Your task to perform on an android device: stop showing notifications on the lock screen Image 0: 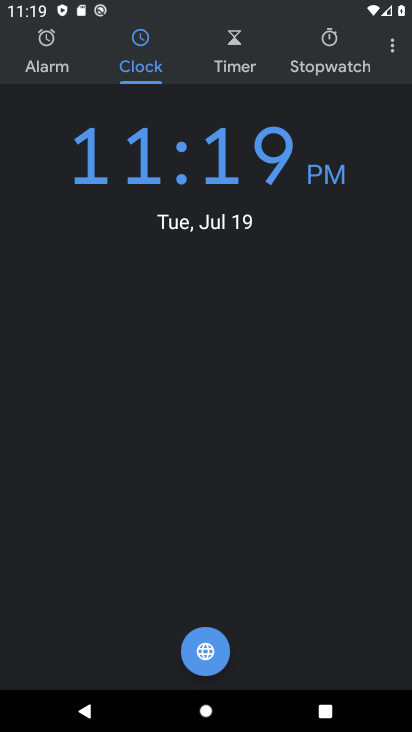
Step 0: drag from (364, 626) to (183, 82)
Your task to perform on an android device: stop showing notifications on the lock screen Image 1: 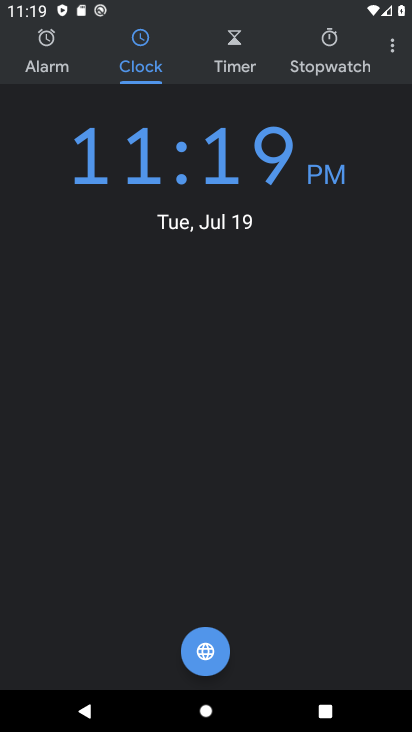
Step 1: press home button
Your task to perform on an android device: stop showing notifications on the lock screen Image 2: 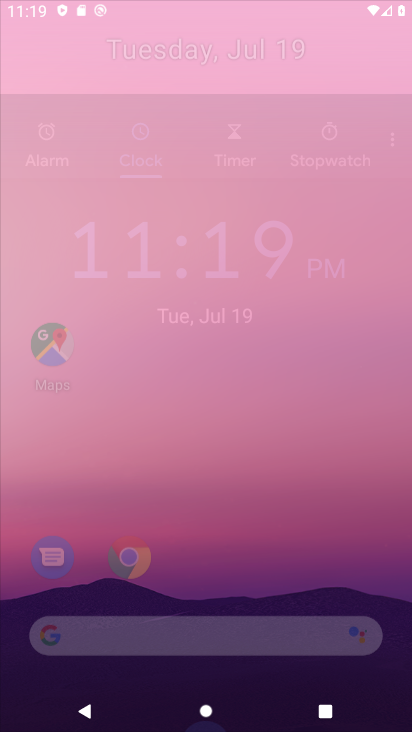
Step 2: drag from (382, 698) to (245, 29)
Your task to perform on an android device: stop showing notifications on the lock screen Image 3: 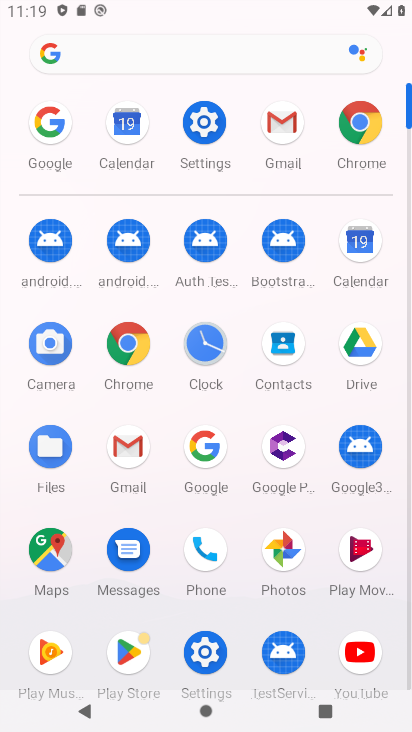
Step 3: click (199, 125)
Your task to perform on an android device: stop showing notifications on the lock screen Image 4: 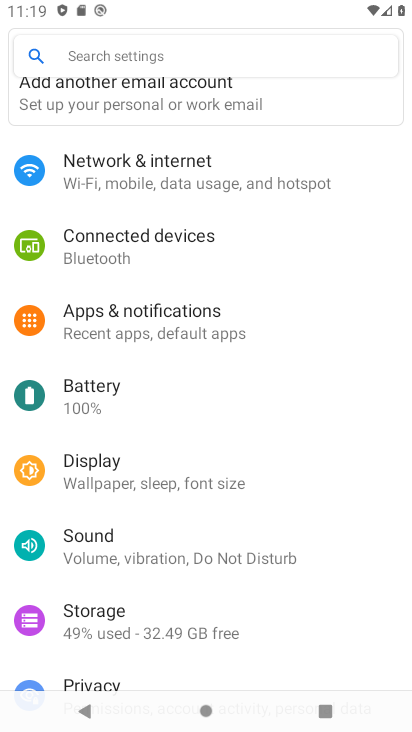
Step 4: click (173, 334)
Your task to perform on an android device: stop showing notifications on the lock screen Image 5: 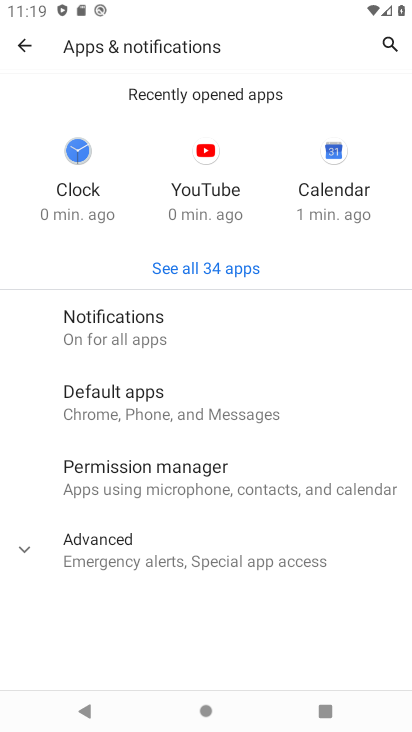
Step 5: click (173, 334)
Your task to perform on an android device: stop showing notifications on the lock screen Image 6: 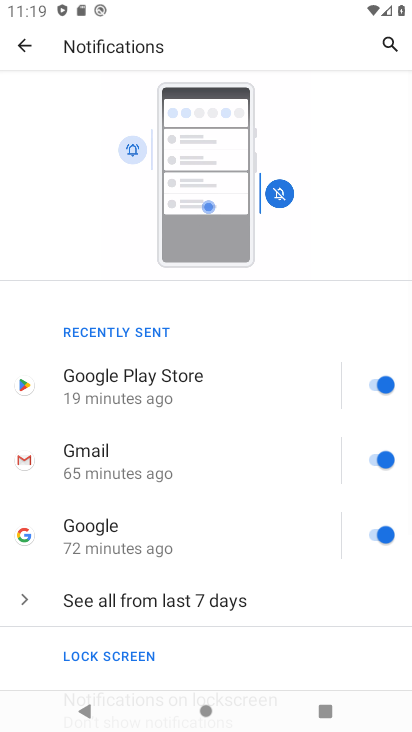
Step 6: drag from (137, 601) to (165, 69)
Your task to perform on an android device: stop showing notifications on the lock screen Image 7: 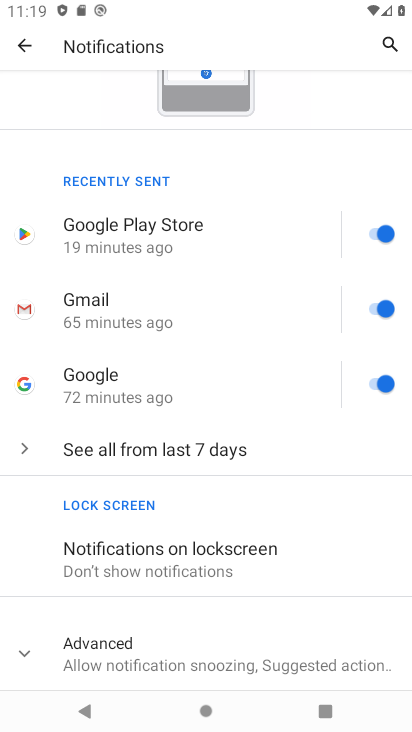
Step 7: click (211, 562)
Your task to perform on an android device: stop showing notifications on the lock screen Image 8: 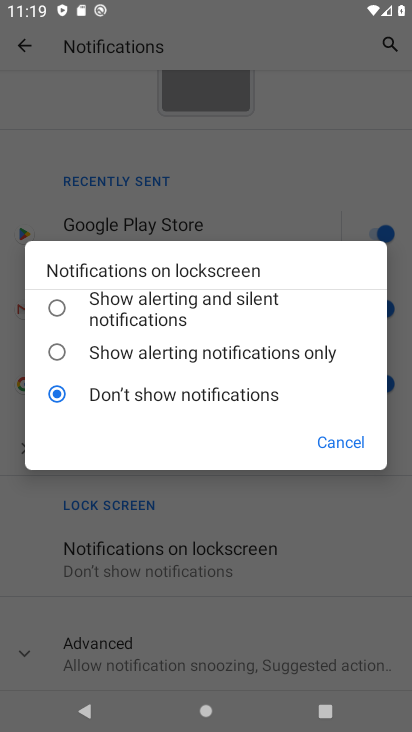
Step 8: task complete